Your task to perform on an android device: toggle translation in the chrome app Image 0: 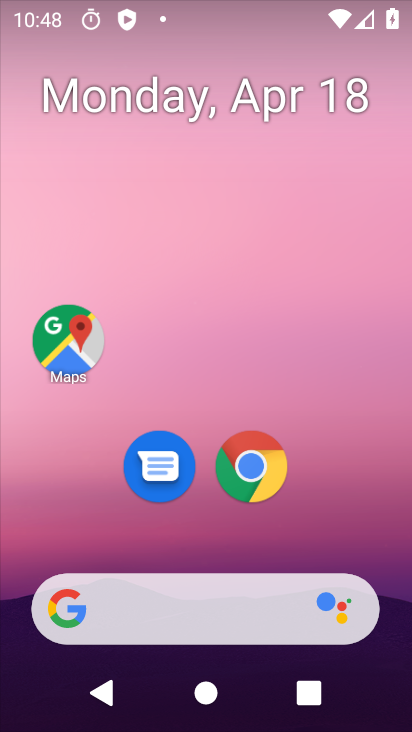
Step 0: drag from (255, 640) to (257, 289)
Your task to perform on an android device: toggle translation in the chrome app Image 1: 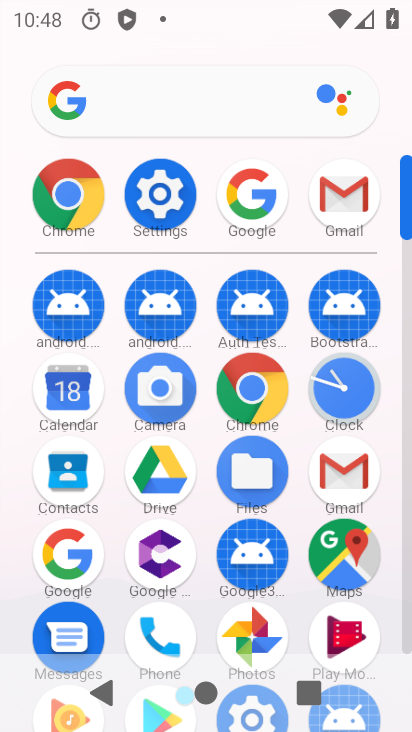
Step 1: click (259, 406)
Your task to perform on an android device: toggle translation in the chrome app Image 2: 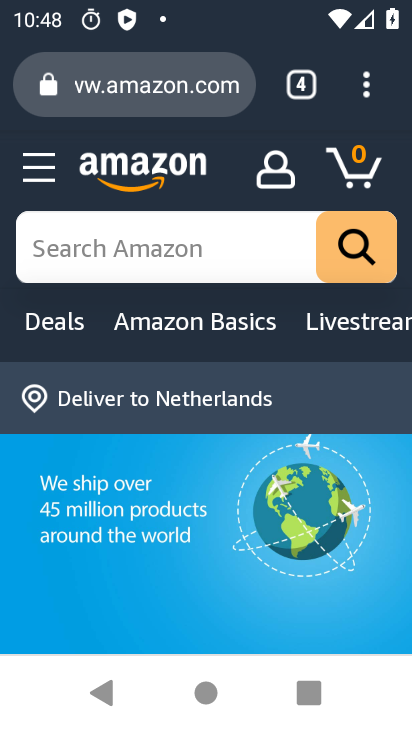
Step 2: click (378, 88)
Your task to perform on an android device: toggle translation in the chrome app Image 3: 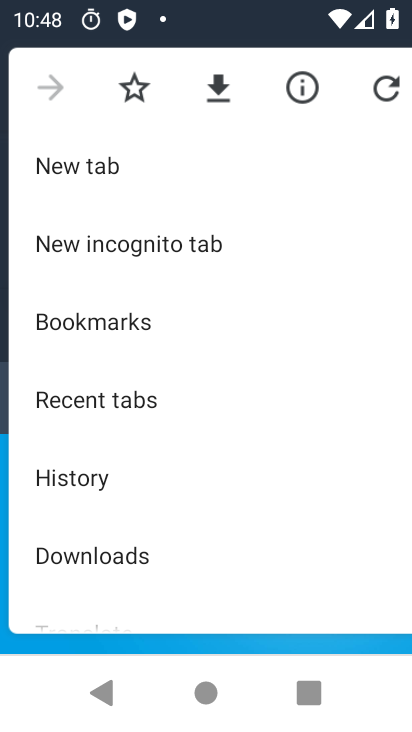
Step 3: drag from (154, 522) to (144, 260)
Your task to perform on an android device: toggle translation in the chrome app Image 4: 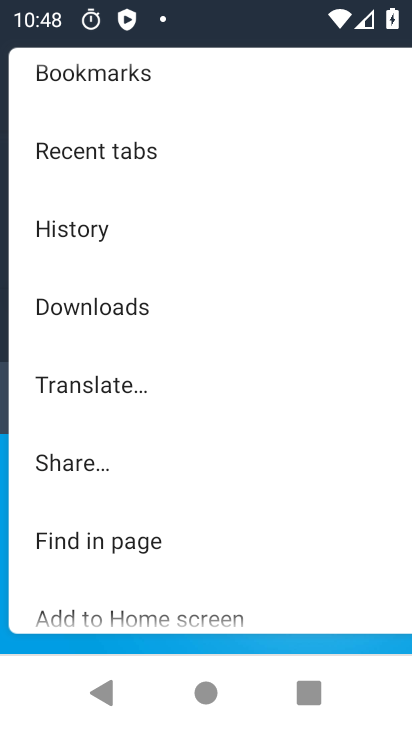
Step 4: drag from (152, 475) to (144, 351)
Your task to perform on an android device: toggle translation in the chrome app Image 5: 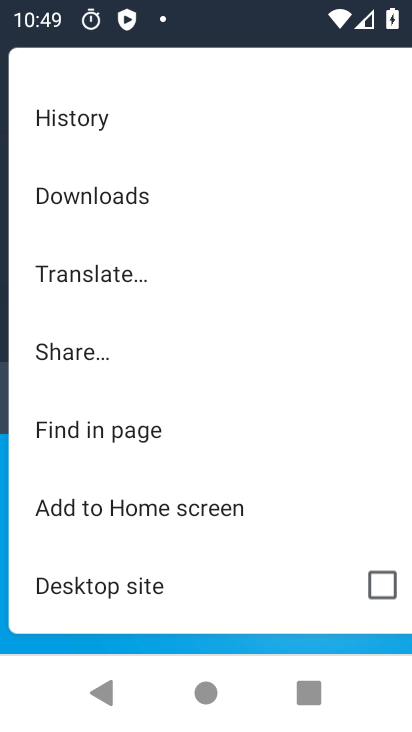
Step 5: click (130, 269)
Your task to perform on an android device: toggle translation in the chrome app Image 6: 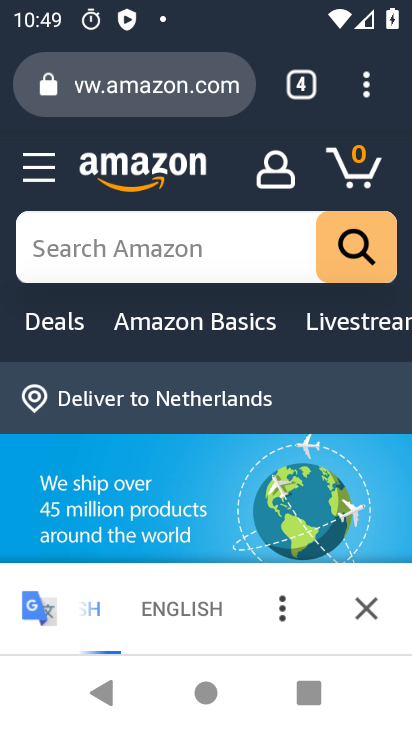
Step 6: click (284, 616)
Your task to perform on an android device: toggle translation in the chrome app Image 7: 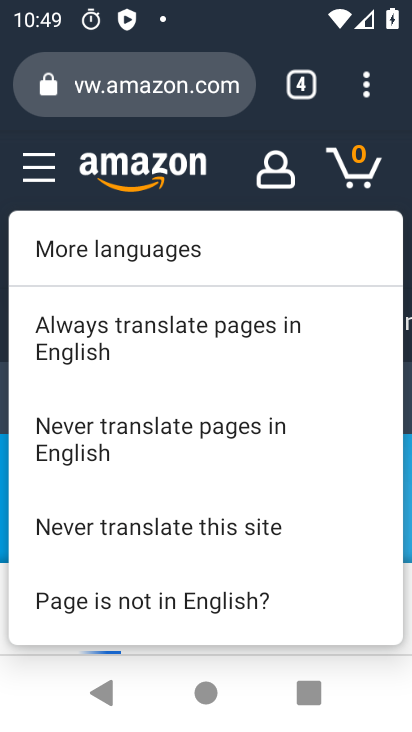
Step 7: drag from (207, 390) to (202, 585)
Your task to perform on an android device: toggle translation in the chrome app Image 8: 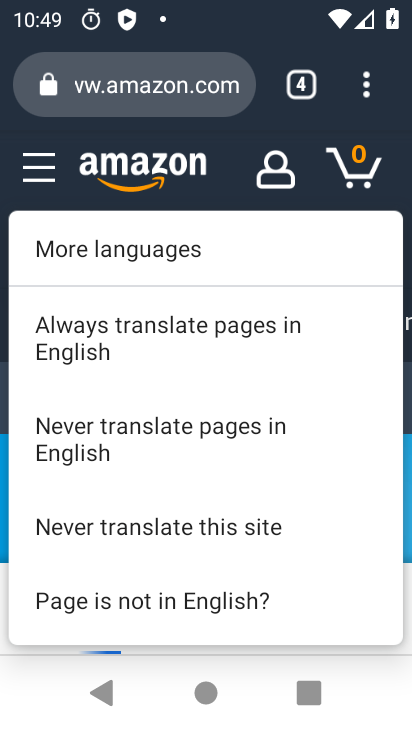
Step 8: click (195, 533)
Your task to perform on an android device: toggle translation in the chrome app Image 9: 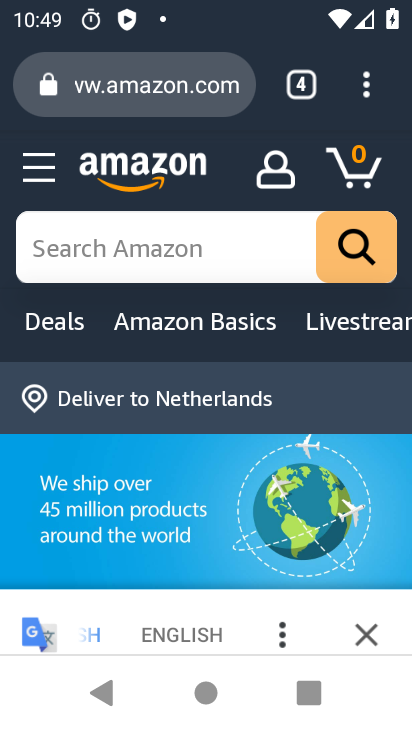
Step 9: task complete